Your task to perform on an android device: Search for pizza restaurants on Maps Image 0: 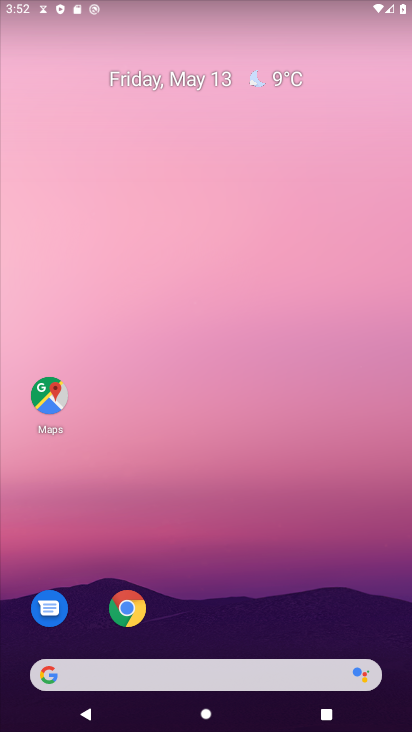
Step 0: click (37, 401)
Your task to perform on an android device: Search for pizza restaurants on Maps Image 1: 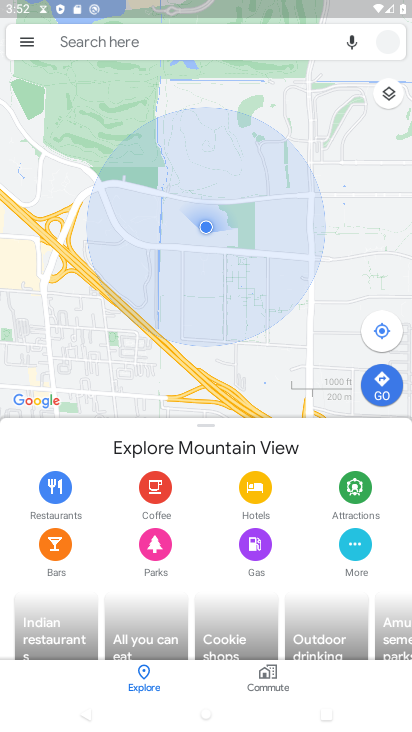
Step 1: click (118, 43)
Your task to perform on an android device: Search for pizza restaurants on Maps Image 2: 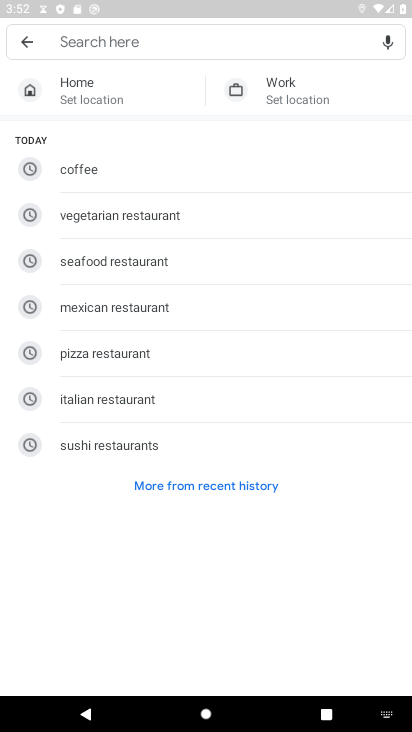
Step 2: click (101, 356)
Your task to perform on an android device: Search for pizza restaurants on Maps Image 3: 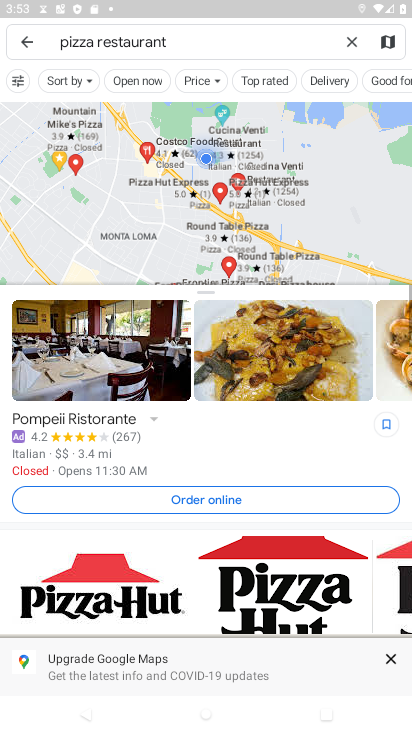
Step 3: task complete